Your task to perform on an android device: turn on notifications settings in the gmail app Image 0: 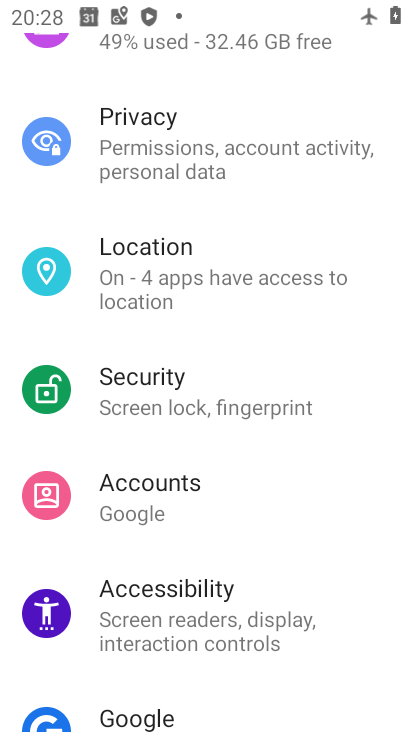
Step 0: press home button
Your task to perform on an android device: turn on notifications settings in the gmail app Image 1: 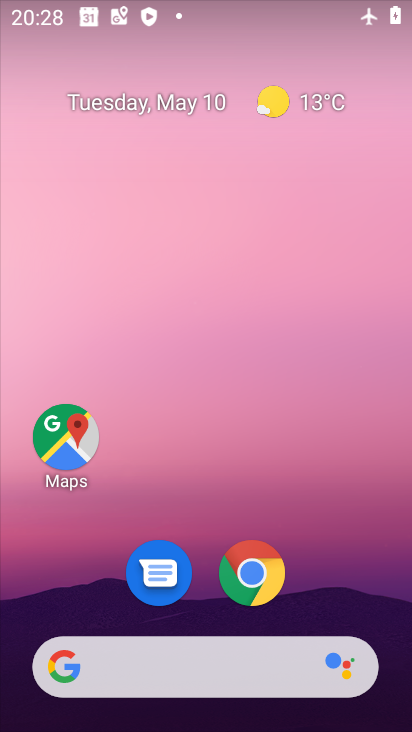
Step 1: drag from (361, 607) to (337, 9)
Your task to perform on an android device: turn on notifications settings in the gmail app Image 2: 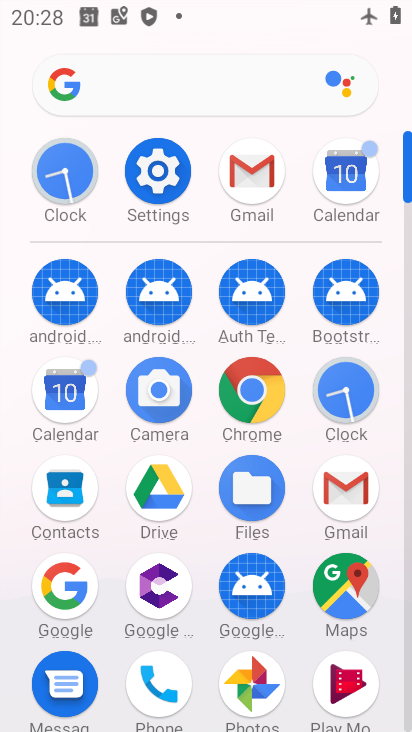
Step 2: click (257, 176)
Your task to perform on an android device: turn on notifications settings in the gmail app Image 3: 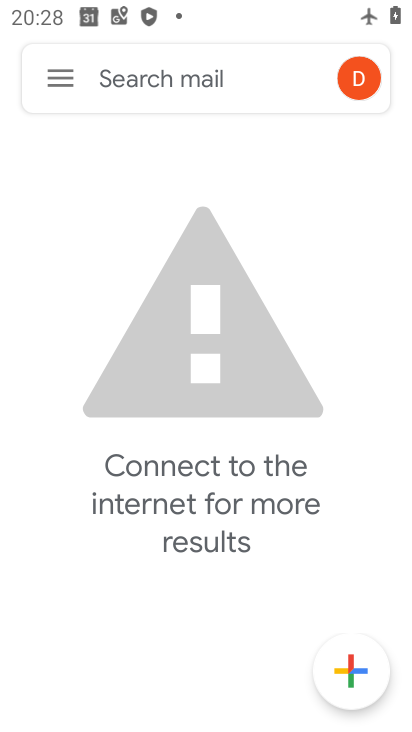
Step 3: click (55, 77)
Your task to perform on an android device: turn on notifications settings in the gmail app Image 4: 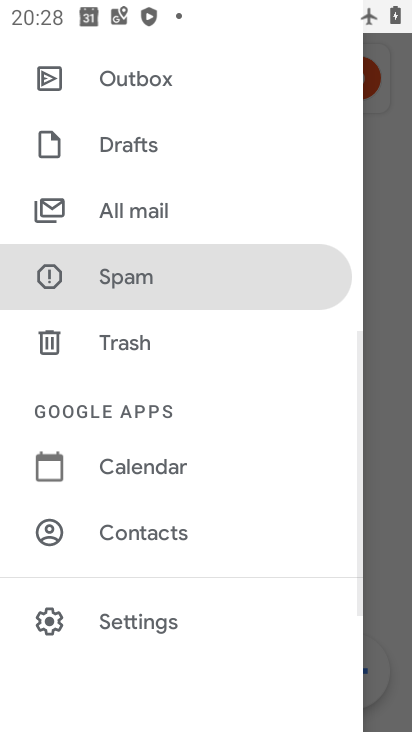
Step 4: click (136, 635)
Your task to perform on an android device: turn on notifications settings in the gmail app Image 5: 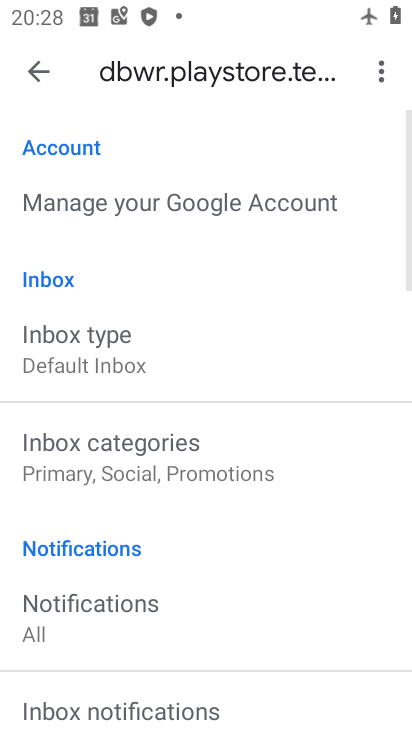
Step 5: click (49, 80)
Your task to perform on an android device: turn on notifications settings in the gmail app Image 6: 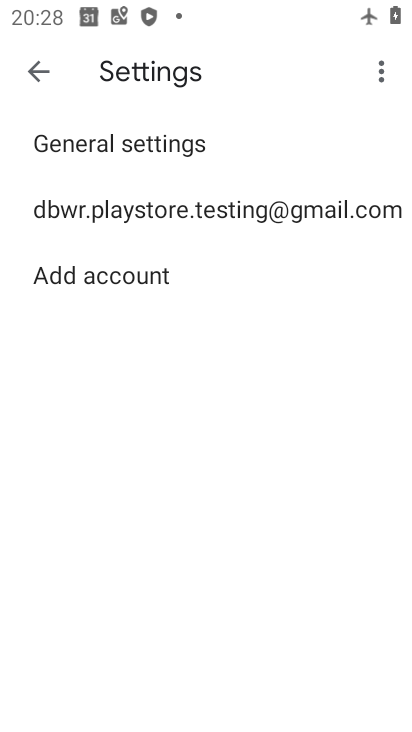
Step 6: click (62, 155)
Your task to perform on an android device: turn on notifications settings in the gmail app Image 7: 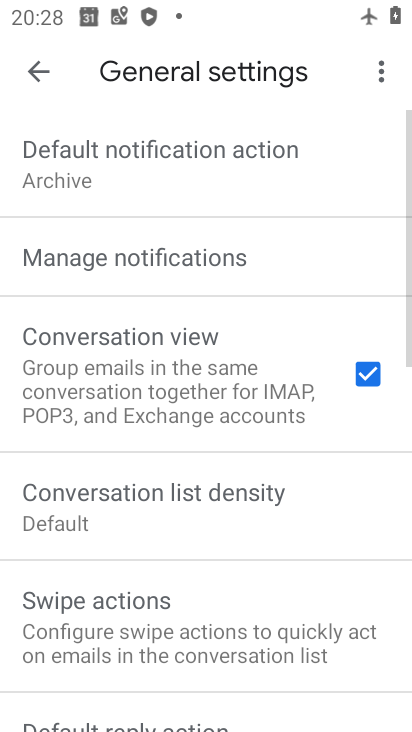
Step 7: click (151, 253)
Your task to perform on an android device: turn on notifications settings in the gmail app Image 8: 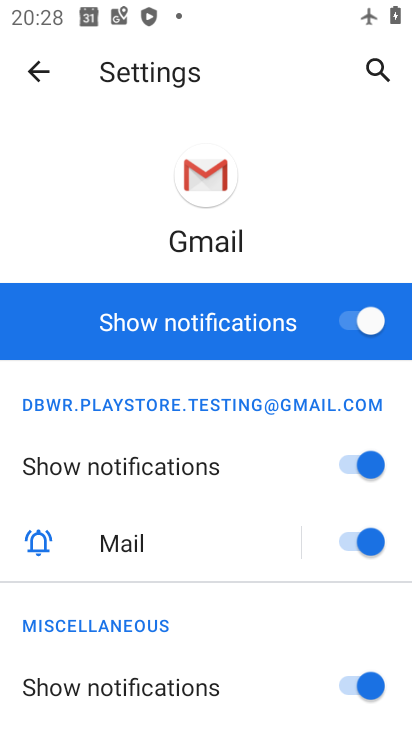
Step 8: task complete